Your task to perform on an android device: toggle pop-ups in chrome Image 0: 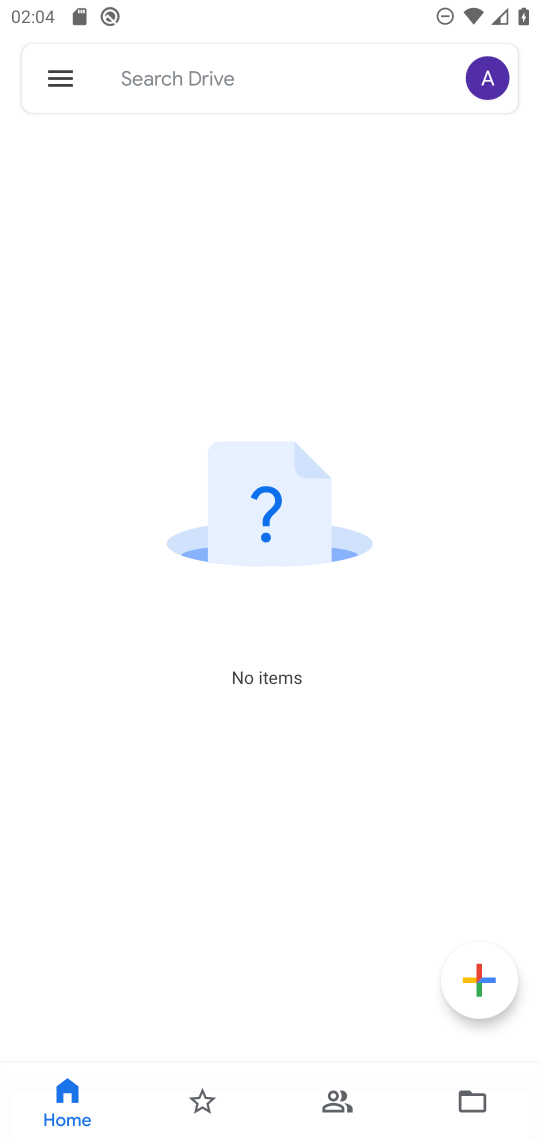
Step 0: press back button
Your task to perform on an android device: toggle pop-ups in chrome Image 1: 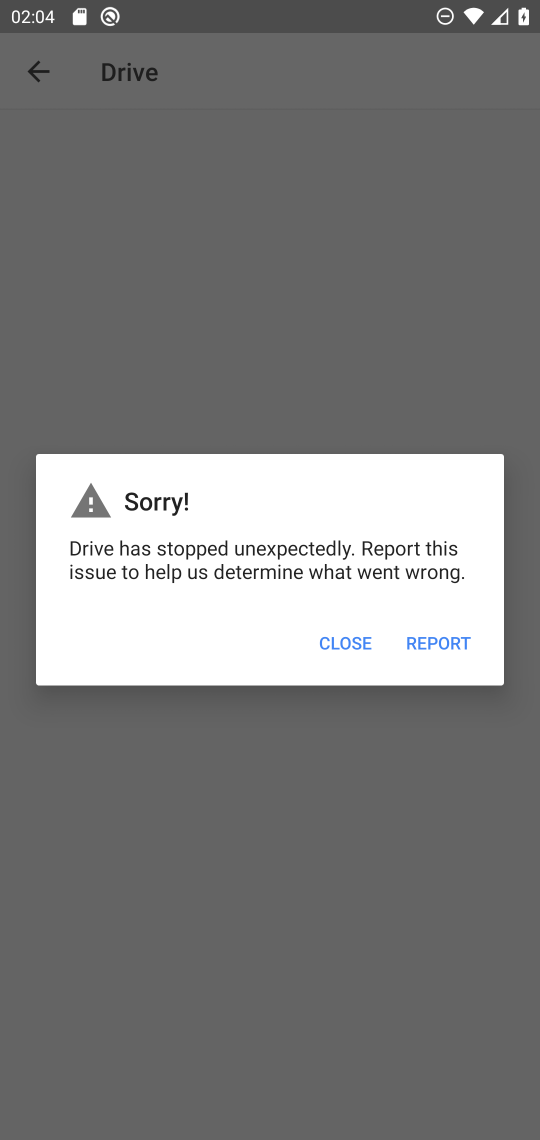
Step 1: press home button
Your task to perform on an android device: toggle pop-ups in chrome Image 2: 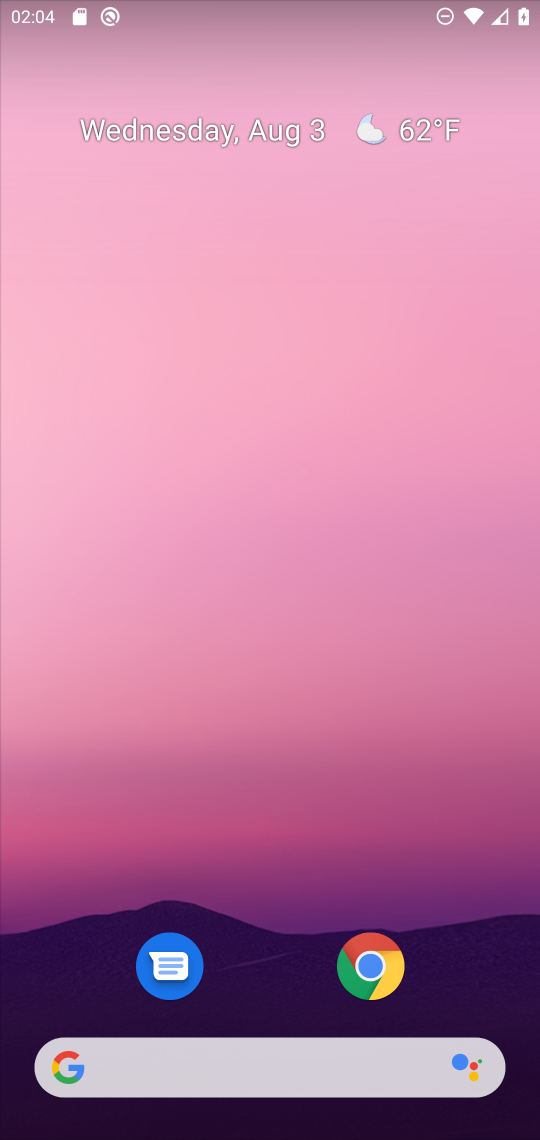
Step 2: click (362, 985)
Your task to perform on an android device: toggle pop-ups in chrome Image 3: 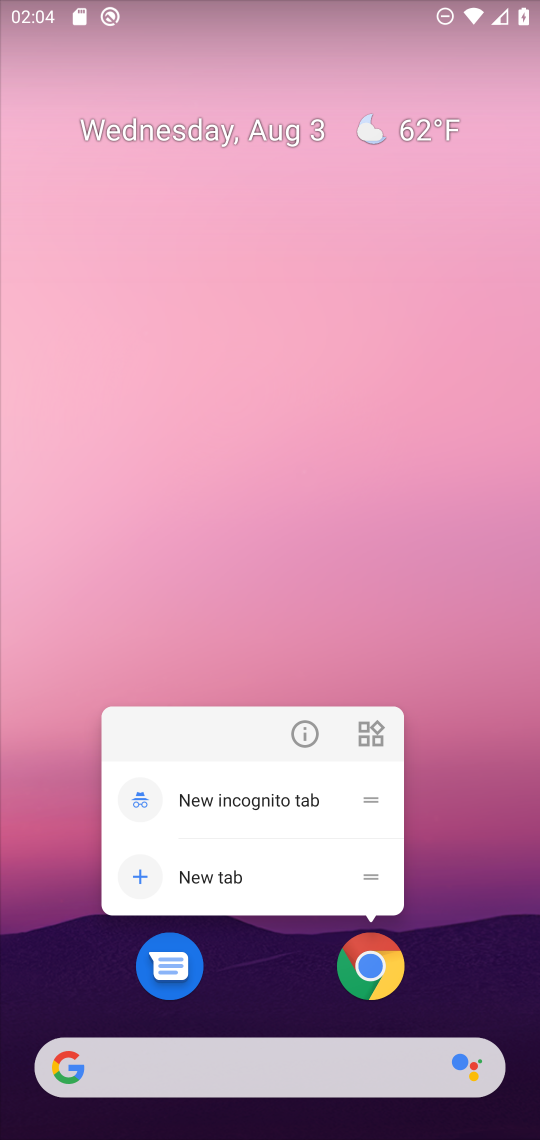
Step 3: click (346, 968)
Your task to perform on an android device: toggle pop-ups in chrome Image 4: 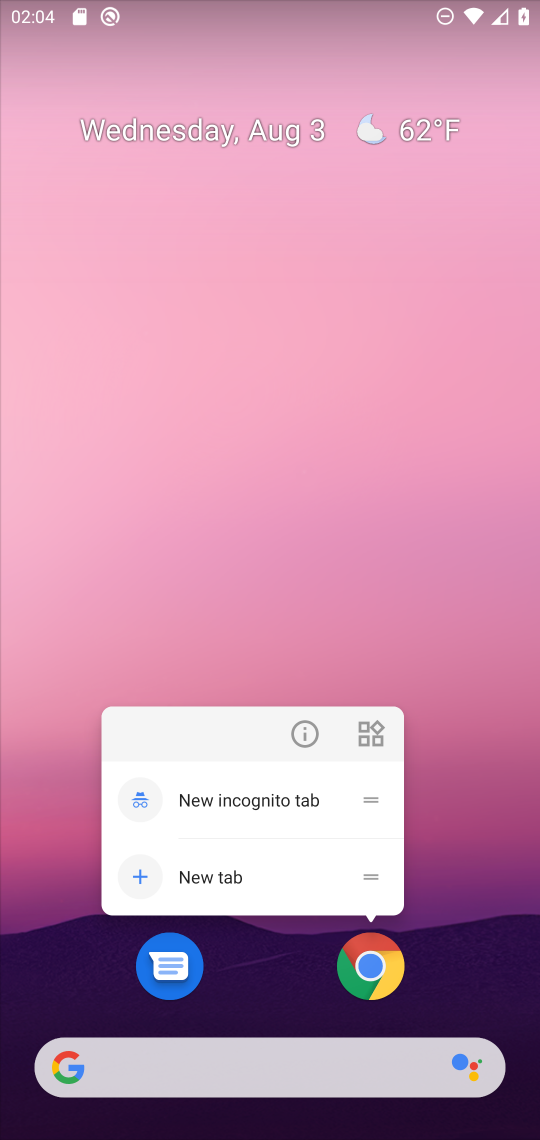
Step 4: click (346, 968)
Your task to perform on an android device: toggle pop-ups in chrome Image 5: 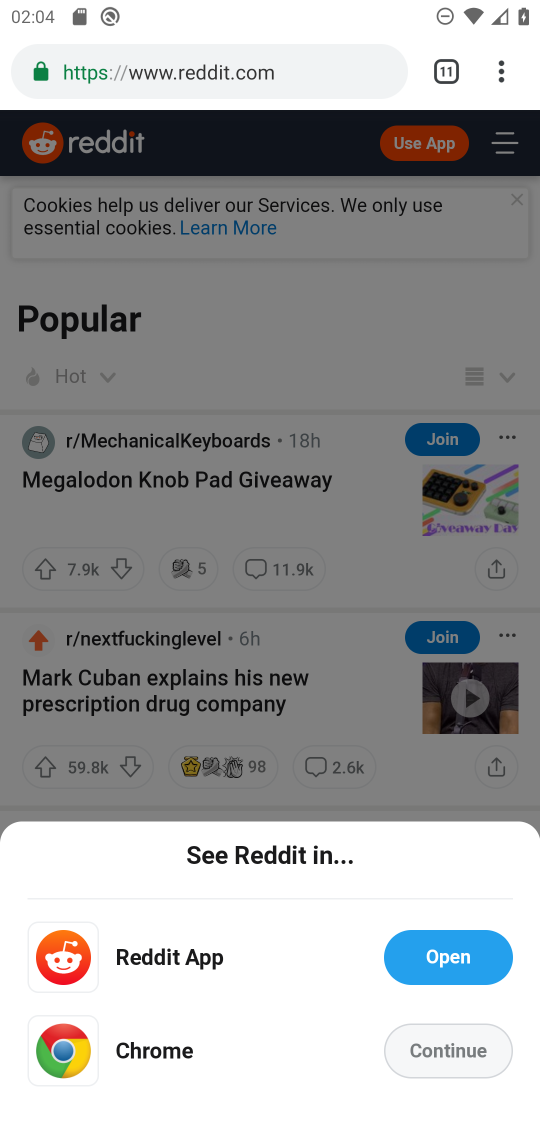
Step 5: click (507, 80)
Your task to perform on an android device: toggle pop-ups in chrome Image 6: 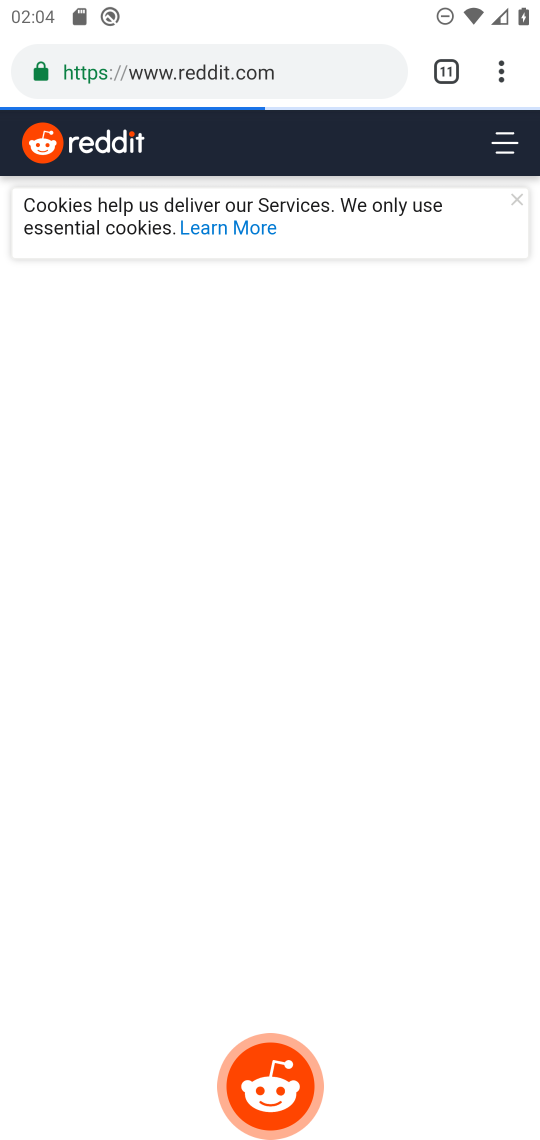
Step 6: drag from (510, 82) to (260, 873)
Your task to perform on an android device: toggle pop-ups in chrome Image 7: 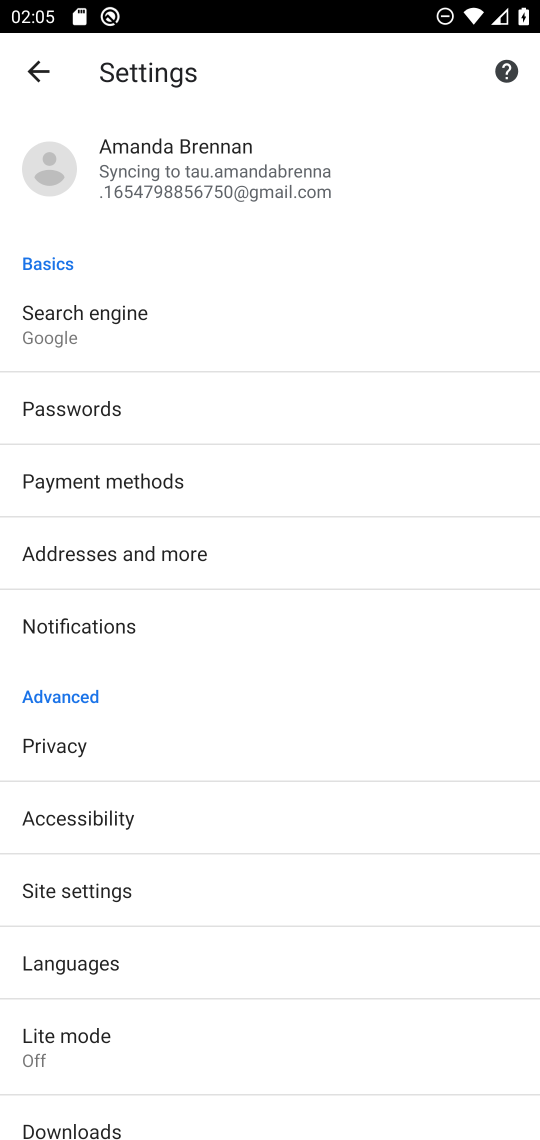
Step 7: click (151, 901)
Your task to perform on an android device: toggle pop-ups in chrome Image 8: 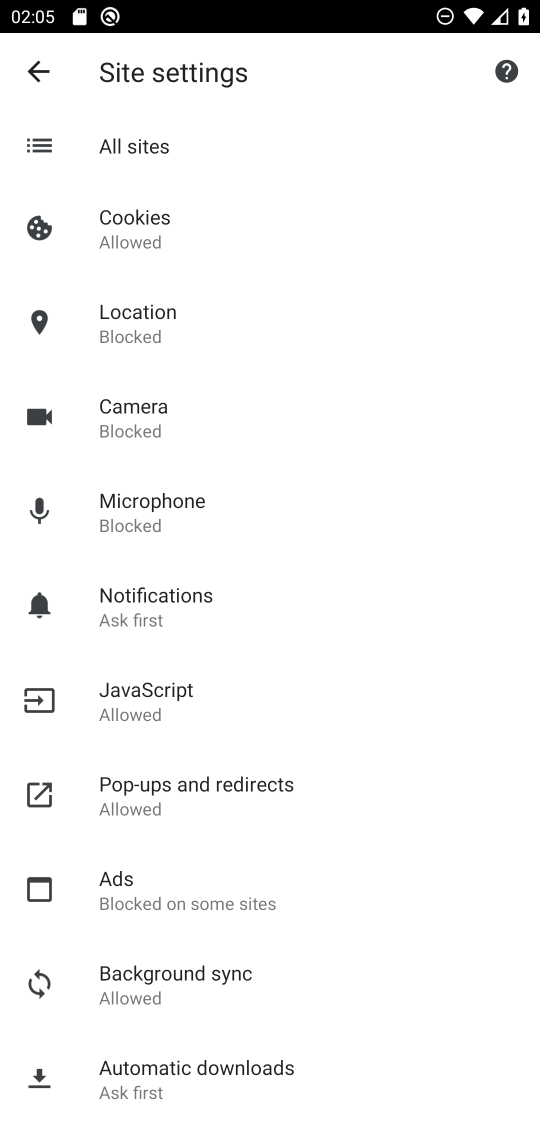
Step 8: click (190, 804)
Your task to perform on an android device: toggle pop-ups in chrome Image 9: 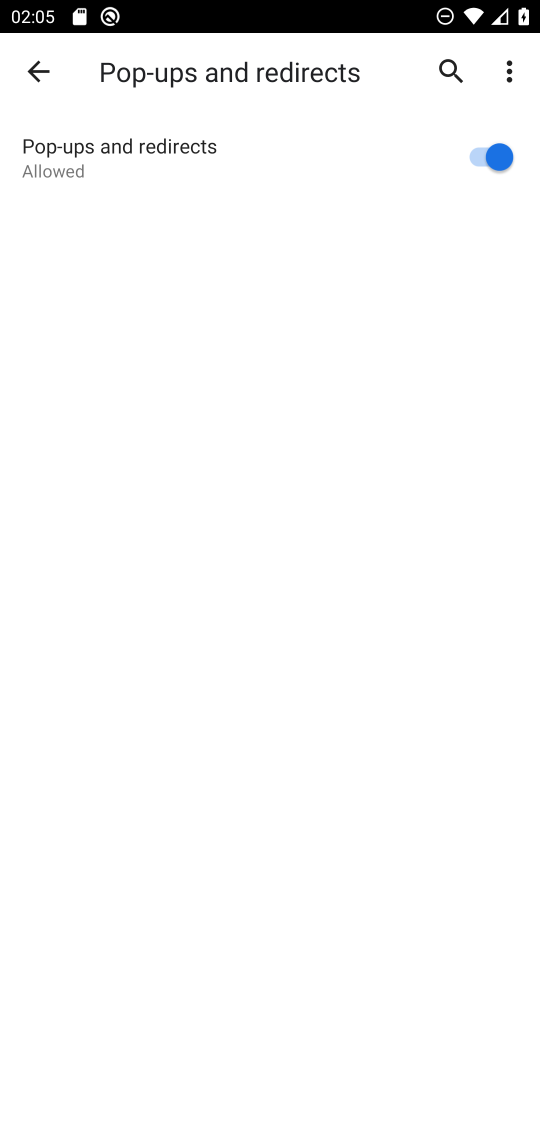
Step 9: click (496, 159)
Your task to perform on an android device: toggle pop-ups in chrome Image 10: 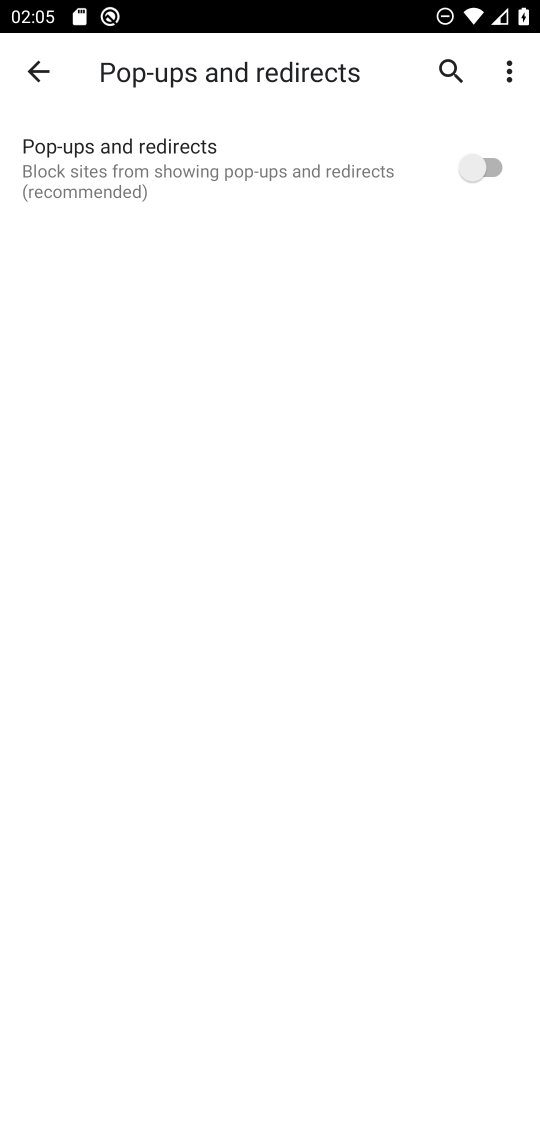
Step 10: task complete